Your task to perform on an android device: star an email in the gmail app Image 0: 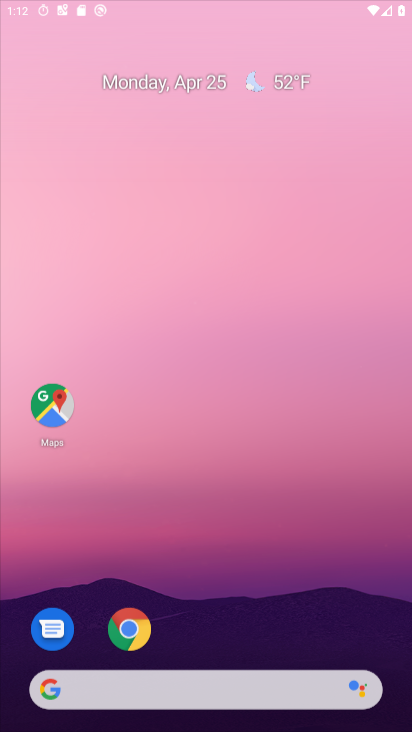
Step 0: click (279, 60)
Your task to perform on an android device: star an email in the gmail app Image 1: 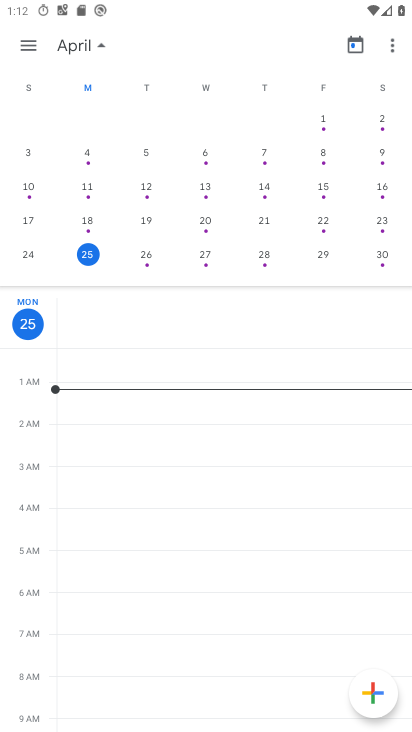
Step 1: drag from (232, 579) to (277, 357)
Your task to perform on an android device: star an email in the gmail app Image 2: 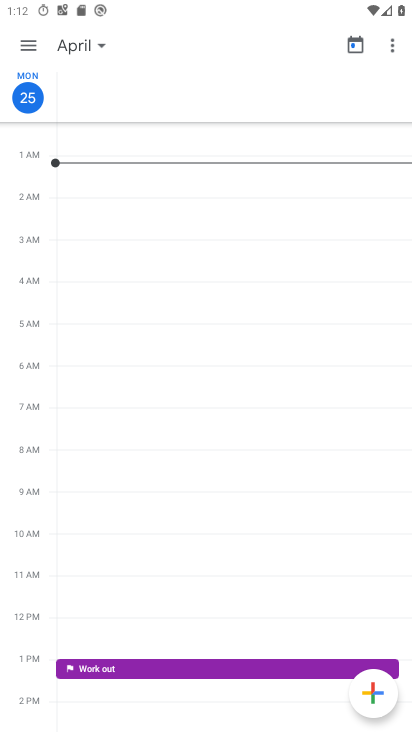
Step 2: press home button
Your task to perform on an android device: star an email in the gmail app Image 3: 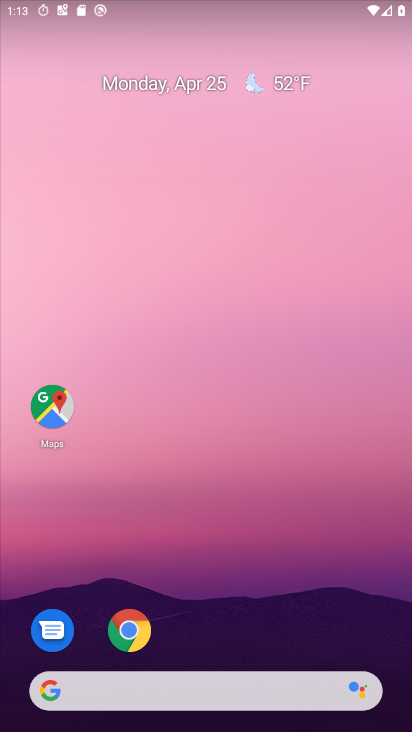
Step 3: drag from (225, 633) to (223, 177)
Your task to perform on an android device: star an email in the gmail app Image 4: 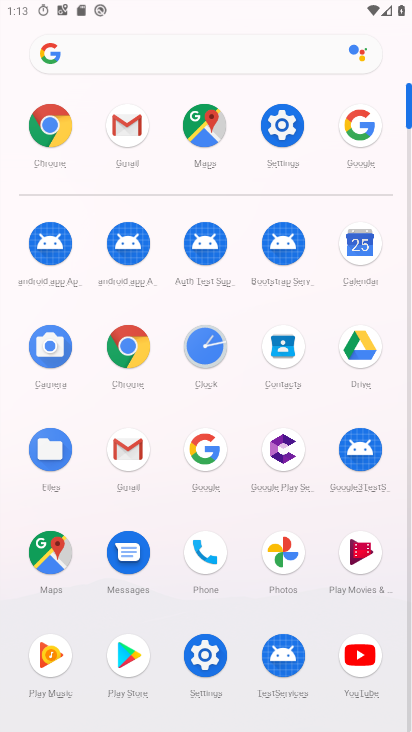
Step 4: click (127, 453)
Your task to perform on an android device: star an email in the gmail app Image 5: 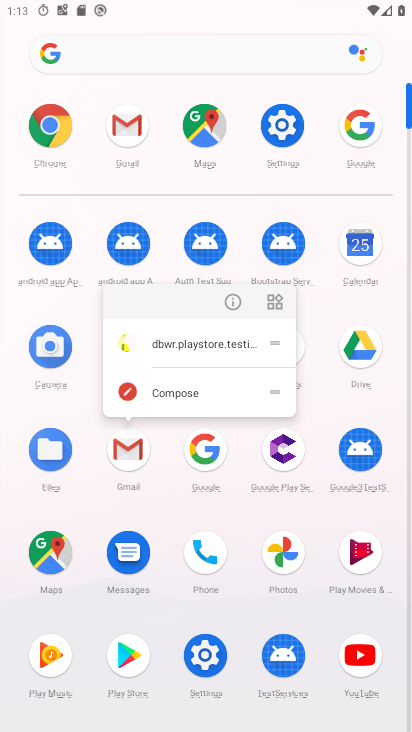
Step 5: click (236, 310)
Your task to perform on an android device: star an email in the gmail app Image 6: 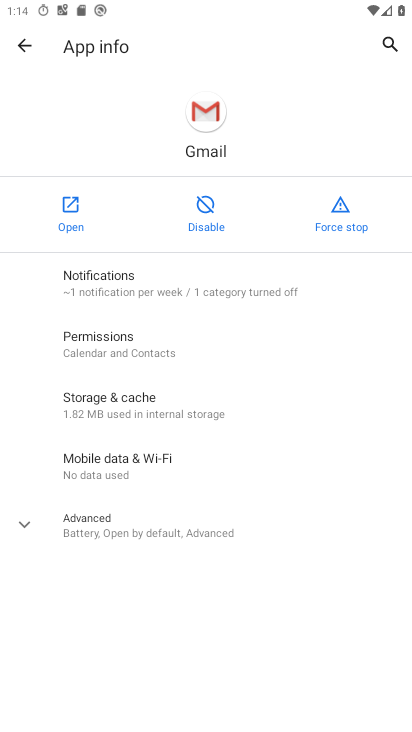
Step 6: click (62, 219)
Your task to perform on an android device: star an email in the gmail app Image 7: 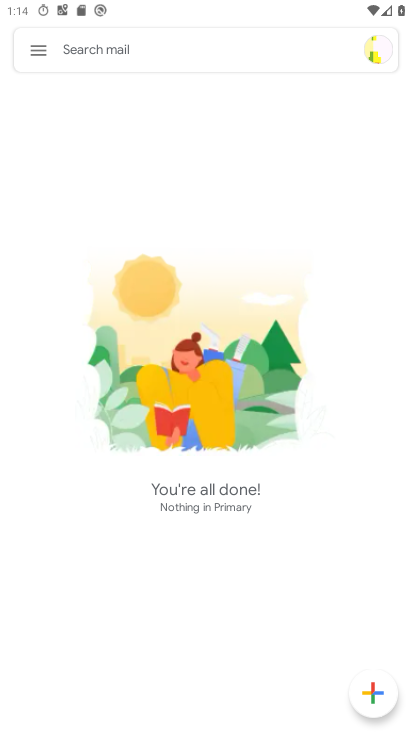
Step 7: click (32, 50)
Your task to perform on an android device: star an email in the gmail app Image 8: 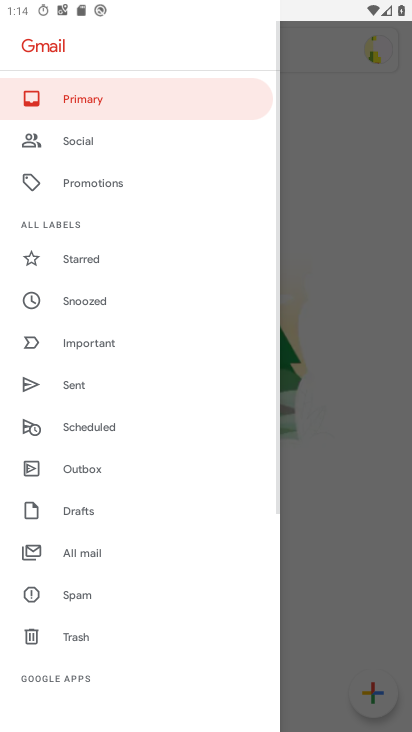
Step 8: click (334, 208)
Your task to perform on an android device: star an email in the gmail app Image 9: 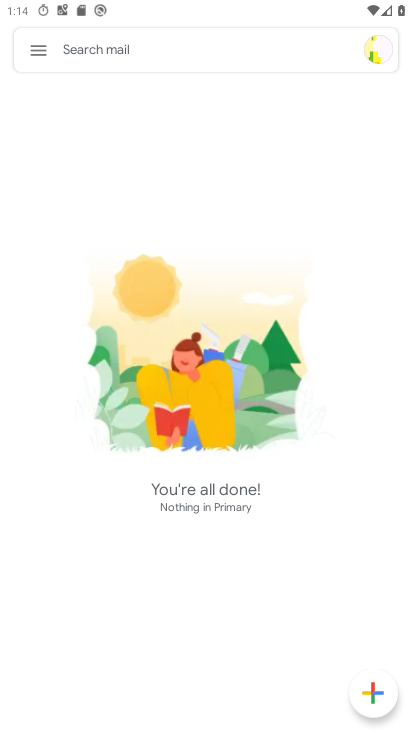
Step 9: task complete